Your task to perform on an android device: Go to ESPN.com Image 0: 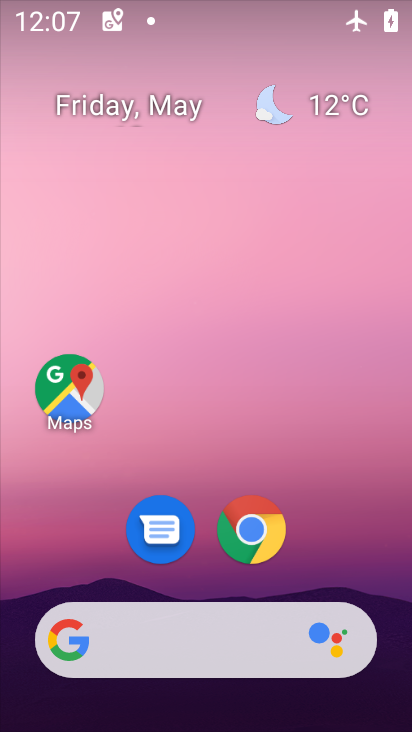
Step 0: click (244, 522)
Your task to perform on an android device: Go to ESPN.com Image 1: 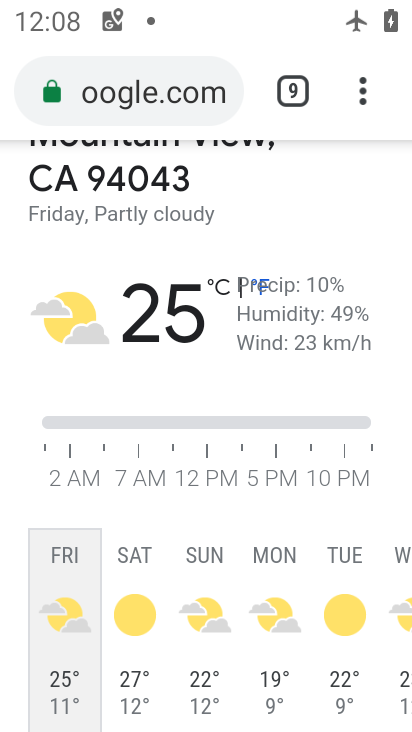
Step 1: click (350, 78)
Your task to perform on an android device: Go to ESPN.com Image 2: 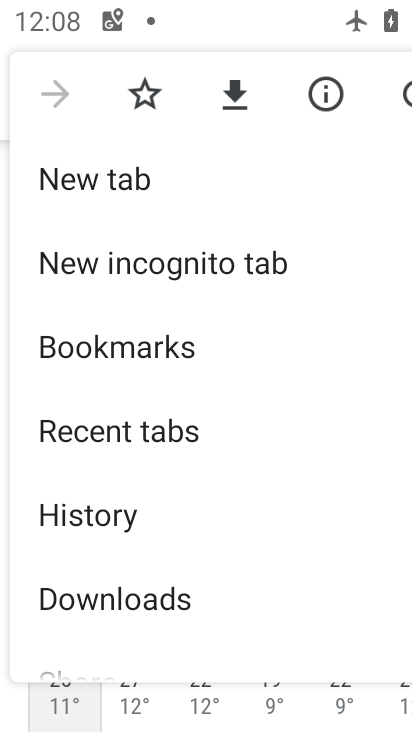
Step 2: click (82, 187)
Your task to perform on an android device: Go to ESPN.com Image 3: 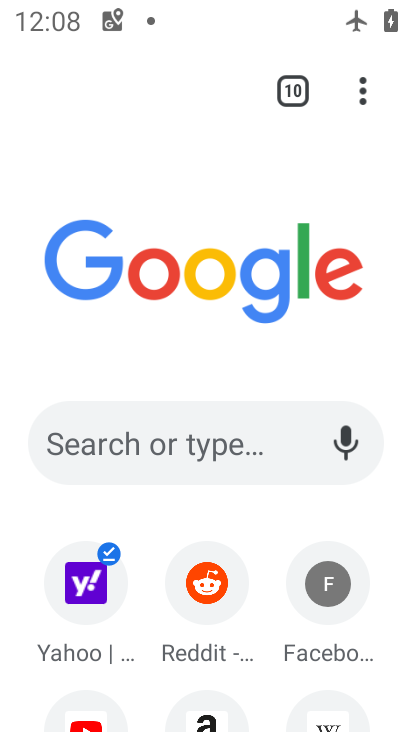
Step 3: click (175, 454)
Your task to perform on an android device: Go to ESPN.com Image 4: 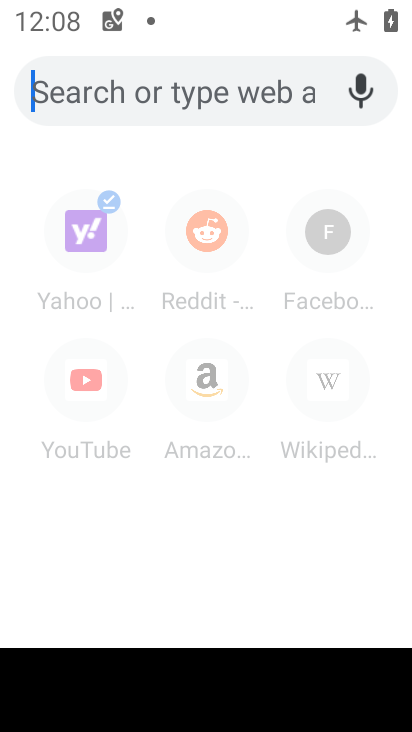
Step 4: type " ESPN.com"
Your task to perform on an android device: Go to ESPN.com Image 5: 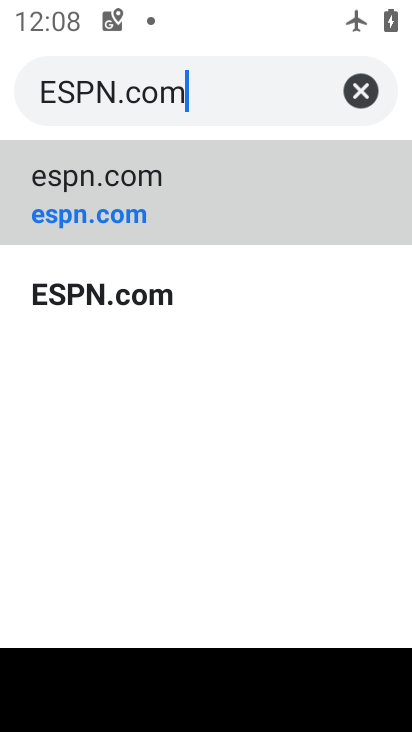
Step 5: click (121, 285)
Your task to perform on an android device: Go to ESPN.com Image 6: 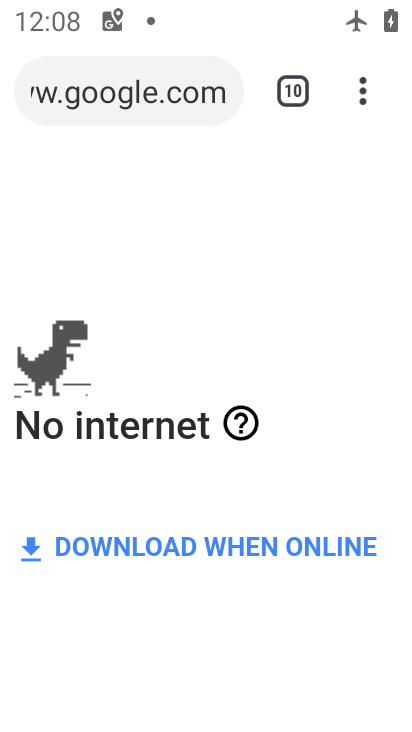
Step 6: task complete